Your task to perform on an android device: turn on data saver in the chrome app Image 0: 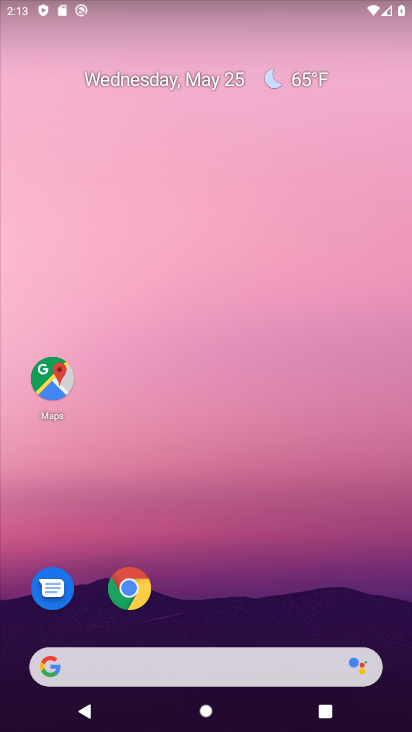
Step 0: click (130, 590)
Your task to perform on an android device: turn on data saver in the chrome app Image 1: 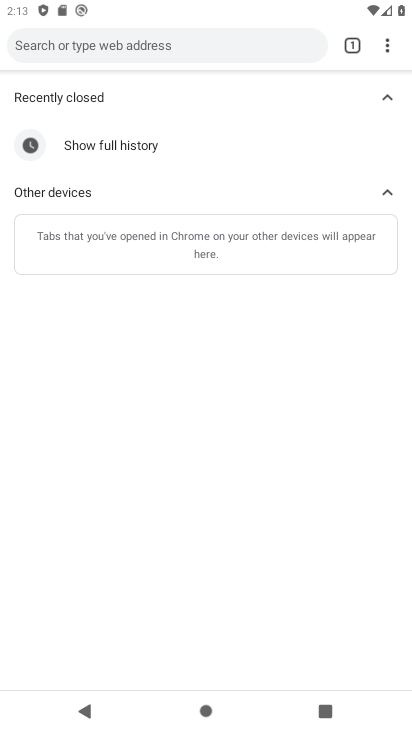
Step 1: click (388, 49)
Your task to perform on an android device: turn on data saver in the chrome app Image 2: 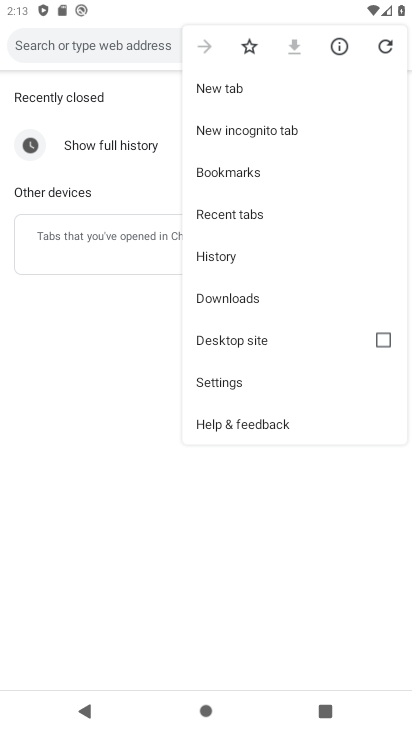
Step 2: click (221, 384)
Your task to perform on an android device: turn on data saver in the chrome app Image 3: 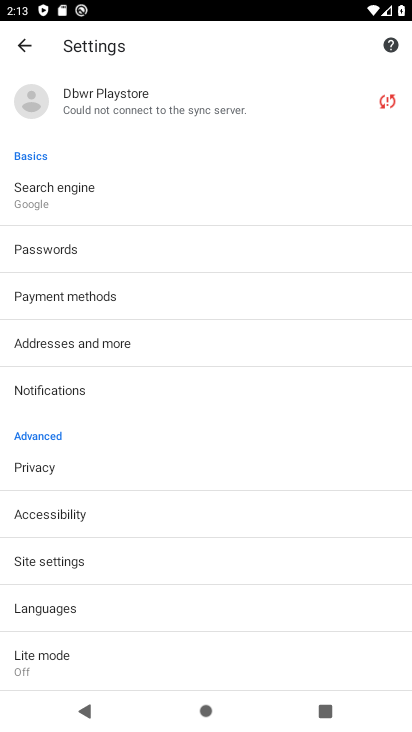
Step 3: click (53, 656)
Your task to perform on an android device: turn on data saver in the chrome app Image 4: 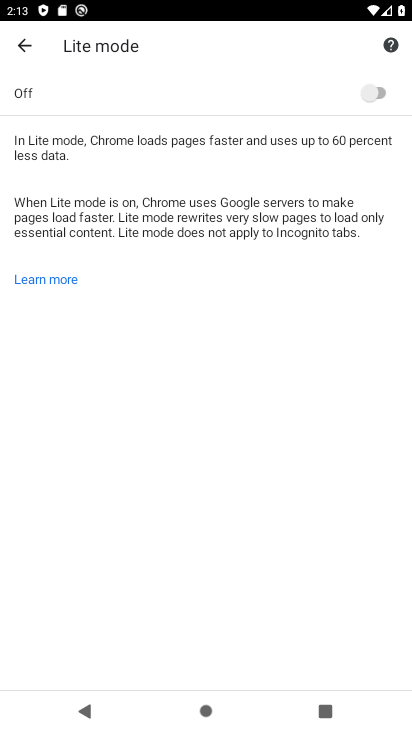
Step 4: click (377, 88)
Your task to perform on an android device: turn on data saver in the chrome app Image 5: 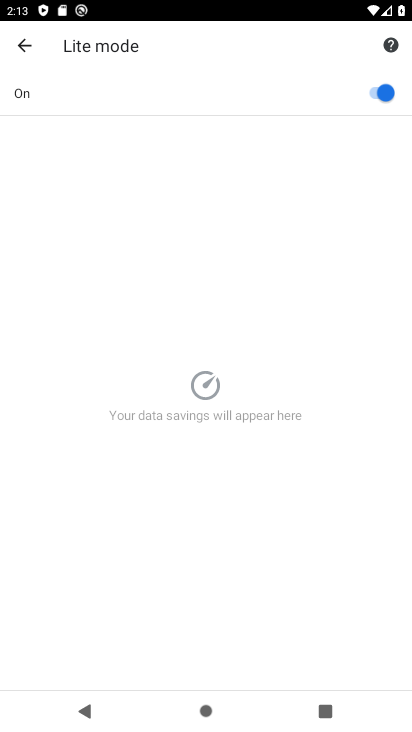
Step 5: task complete